Your task to perform on an android device: Search for seafood restaurants on Google Maps Image 0: 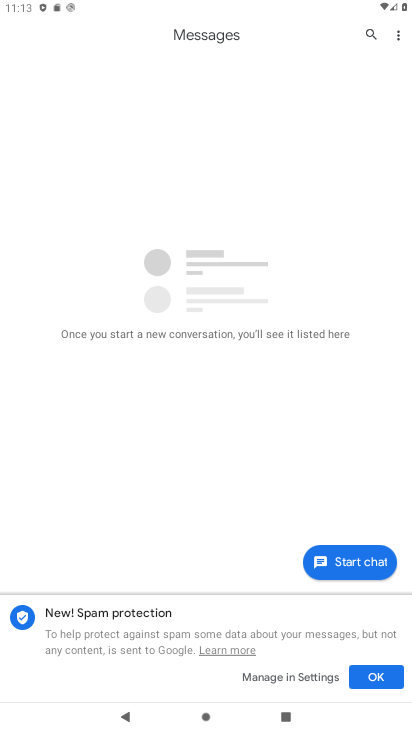
Step 0: press home button
Your task to perform on an android device: Search for seafood restaurants on Google Maps Image 1: 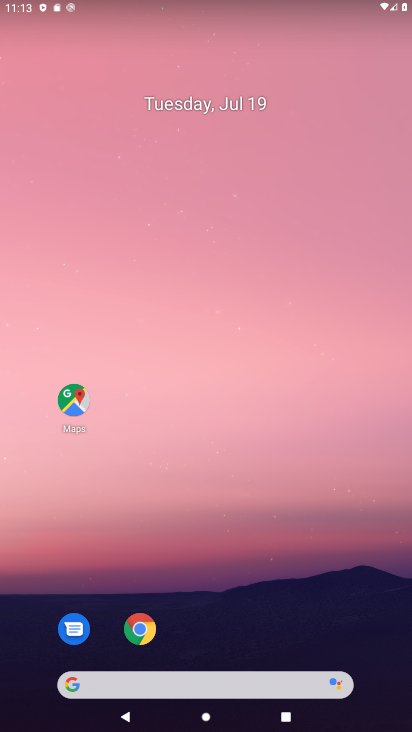
Step 1: drag from (357, 621) to (402, 138)
Your task to perform on an android device: Search for seafood restaurants on Google Maps Image 2: 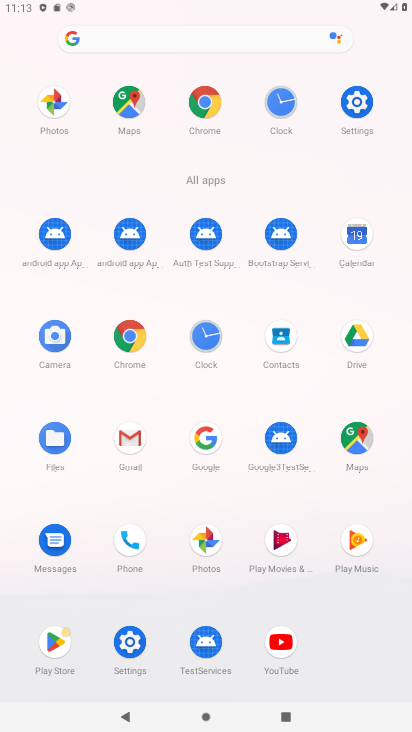
Step 2: click (362, 442)
Your task to perform on an android device: Search for seafood restaurants on Google Maps Image 3: 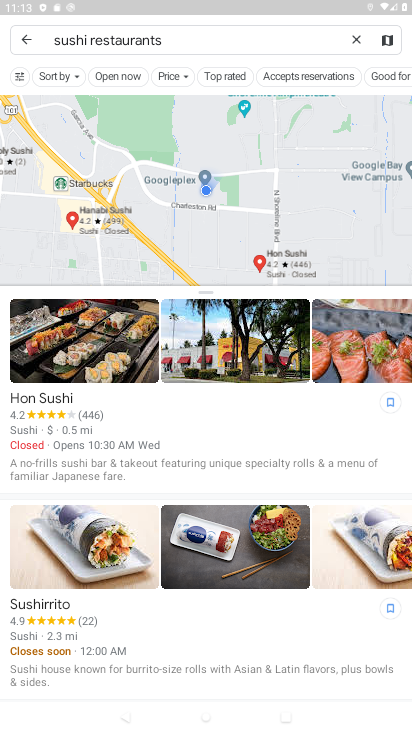
Step 3: press back button
Your task to perform on an android device: Search for seafood restaurants on Google Maps Image 4: 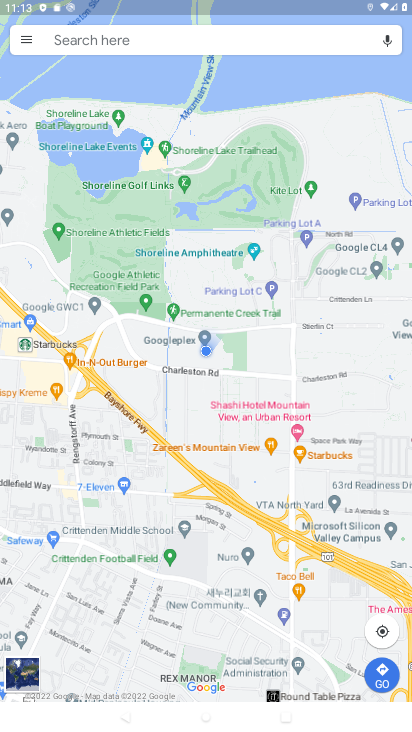
Step 4: click (244, 36)
Your task to perform on an android device: Search for seafood restaurants on Google Maps Image 5: 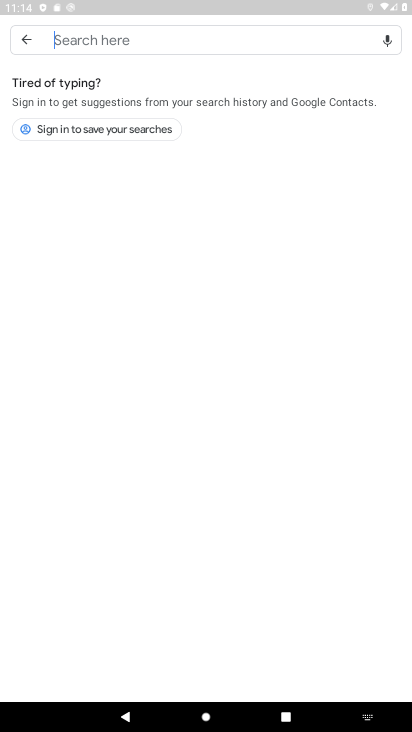
Step 5: type "seafood restaurants"
Your task to perform on an android device: Search for seafood restaurants on Google Maps Image 6: 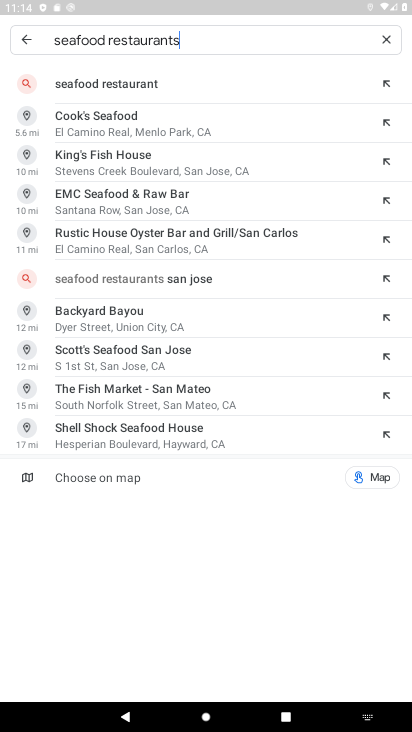
Step 6: click (174, 84)
Your task to perform on an android device: Search for seafood restaurants on Google Maps Image 7: 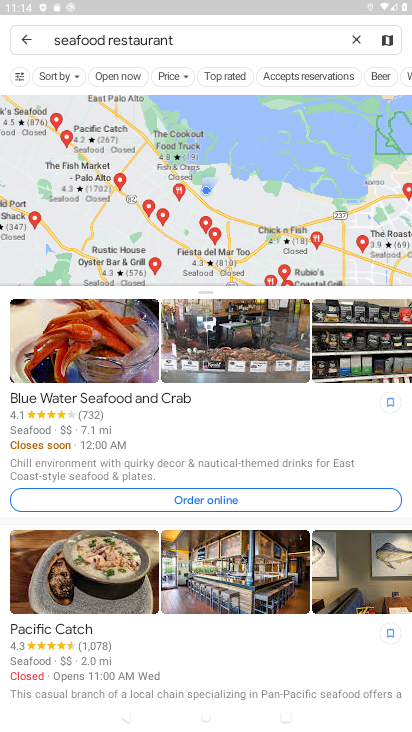
Step 7: task complete